Your task to perform on an android device: turn smart compose on in the gmail app Image 0: 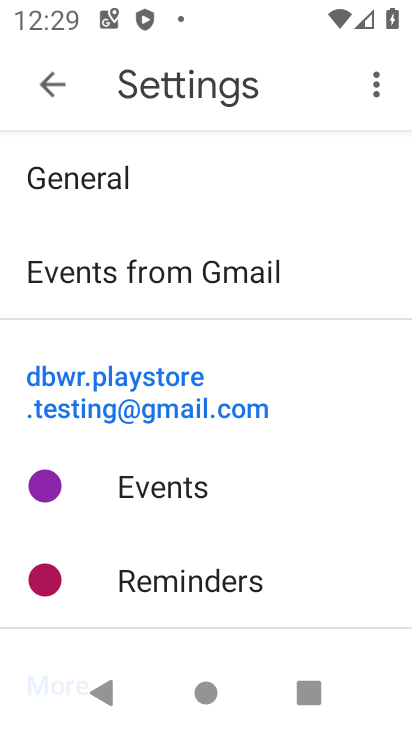
Step 0: press home button
Your task to perform on an android device: turn smart compose on in the gmail app Image 1: 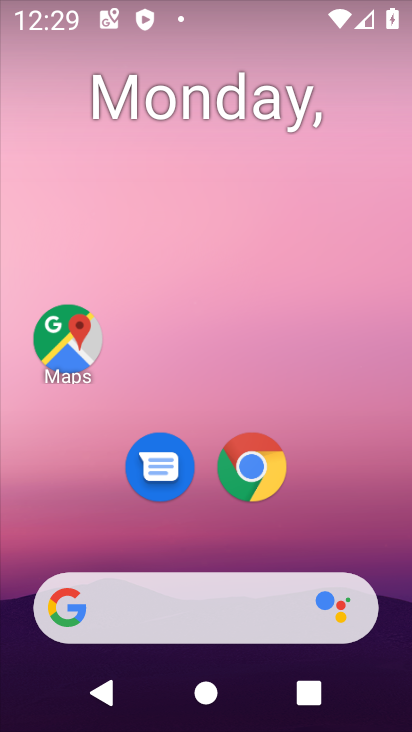
Step 1: drag from (381, 551) to (349, 108)
Your task to perform on an android device: turn smart compose on in the gmail app Image 2: 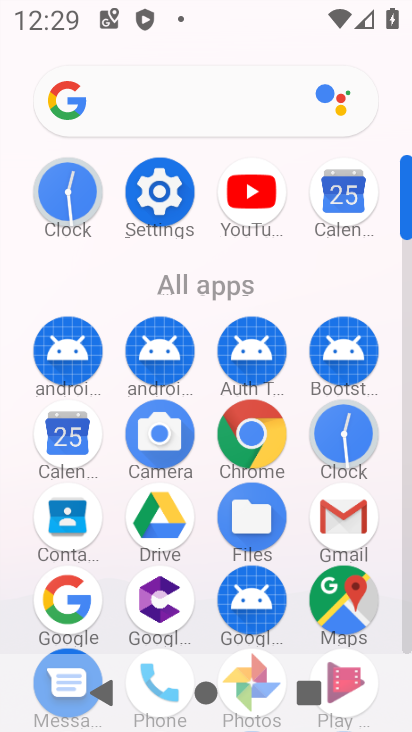
Step 2: click (406, 627)
Your task to perform on an android device: turn smart compose on in the gmail app Image 3: 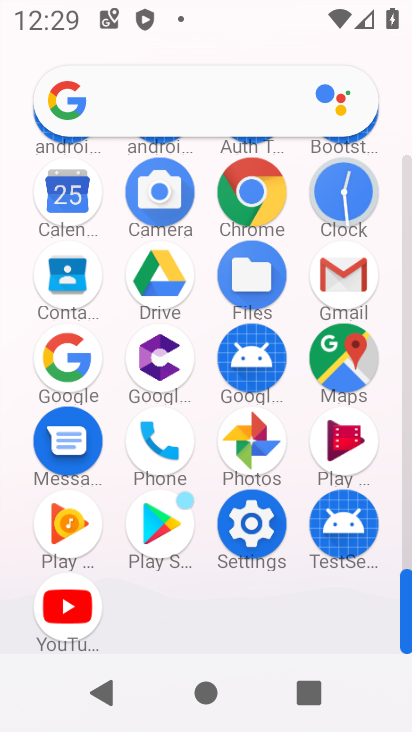
Step 3: click (336, 267)
Your task to perform on an android device: turn smart compose on in the gmail app Image 4: 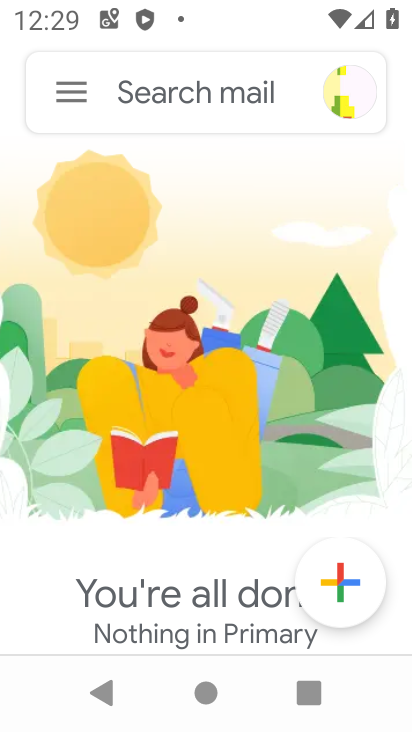
Step 4: click (70, 87)
Your task to perform on an android device: turn smart compose on in the gmail app Image 5: 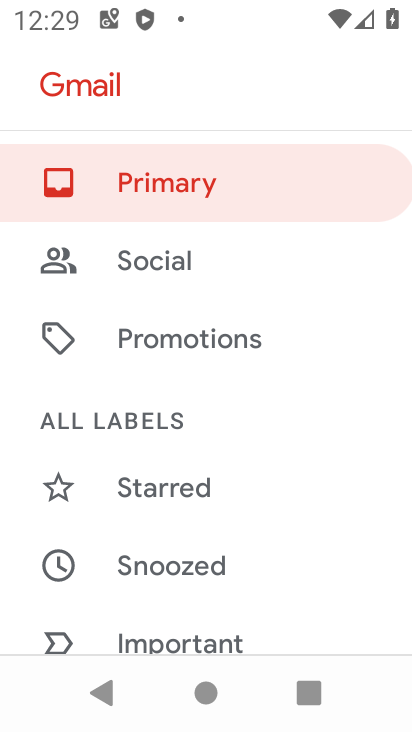
Step 5: drag from (248, 566) to (268, 191)
Your task to perform on an android device: turn smart compose on in the gmail app Image 6: 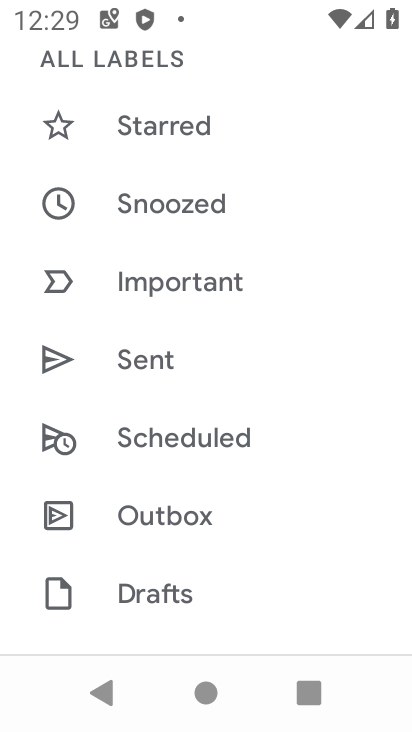
Step 6: drag from (281, 532) to (266, 233)
Your task to perform on an android device: turn smart compose on in the gmail app Image 7: 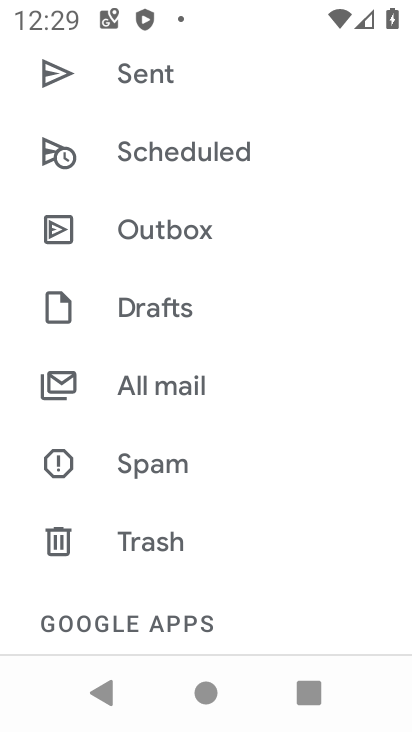
Step 7: drag from (260, 604) to (252, 129)
Your task to perform on an android device: turn smart compose on in the gmail app Image 8: 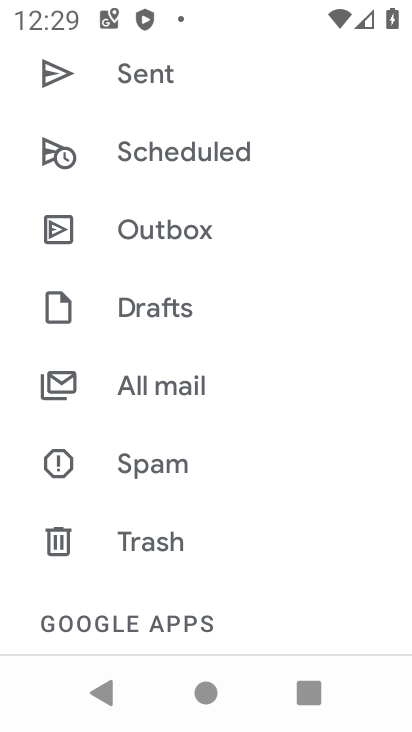
Step 8: drag from (209, 589) to (270, 189)
Your task to perform on an android device: turn smart compose on in the gmail app Image 9: 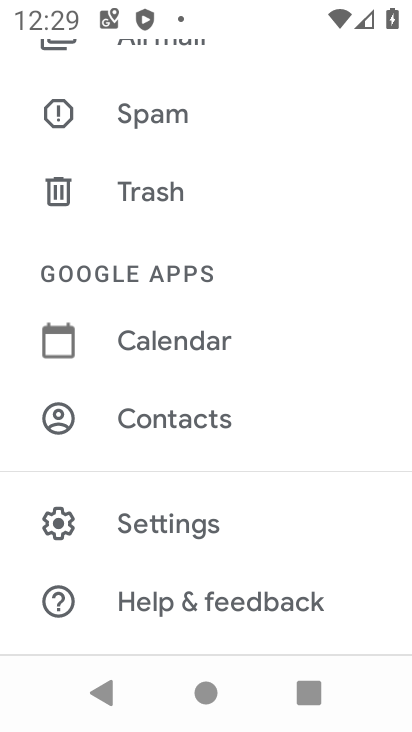
Step 9: click (172, 529)
Your task to perform on an android device: turn smart compose on in the gmail app Image 10: 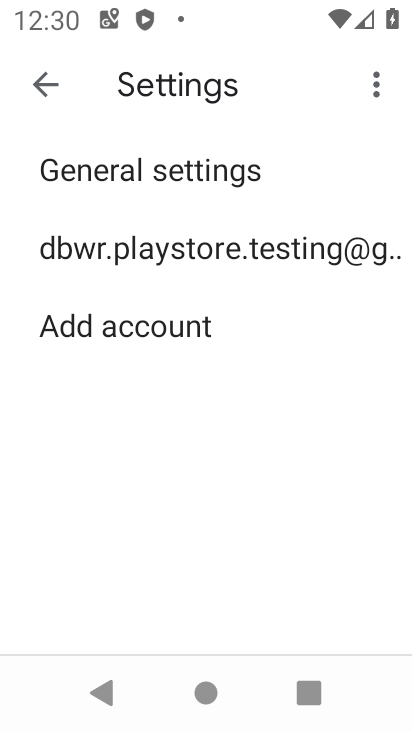
Step 10: click (173, 247)
Your task to perform on an android device: turn smart compose on in the gmail app Image 11: 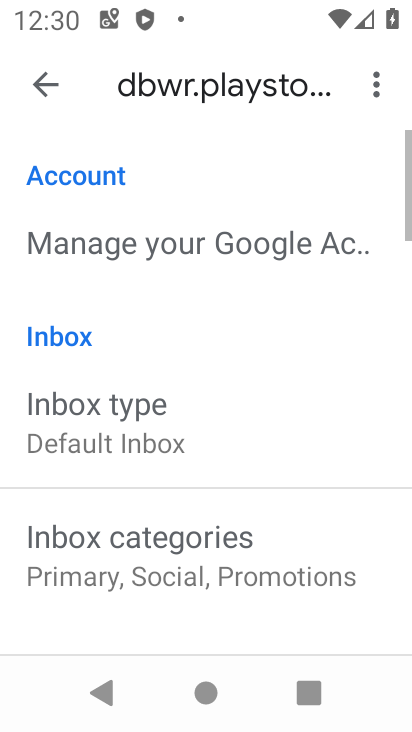
Step 11: task complete